Your task to perform on an android device: Open calendar and show me the fourth week of next month Image 0: 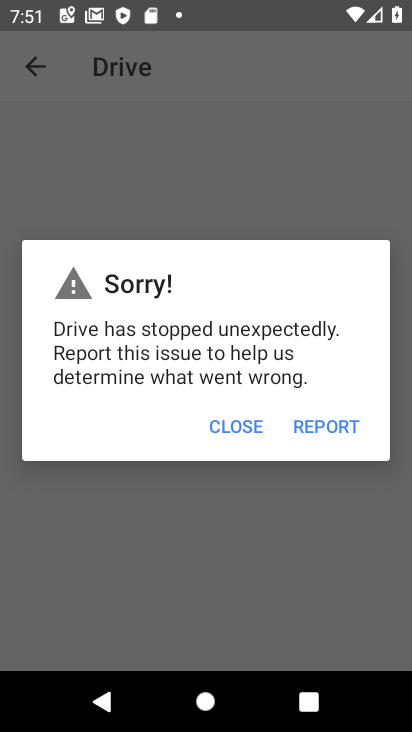
Step 0: press home button
Your task to perform on an android device: Open calendar and show me the fourth week of next month Image 1: 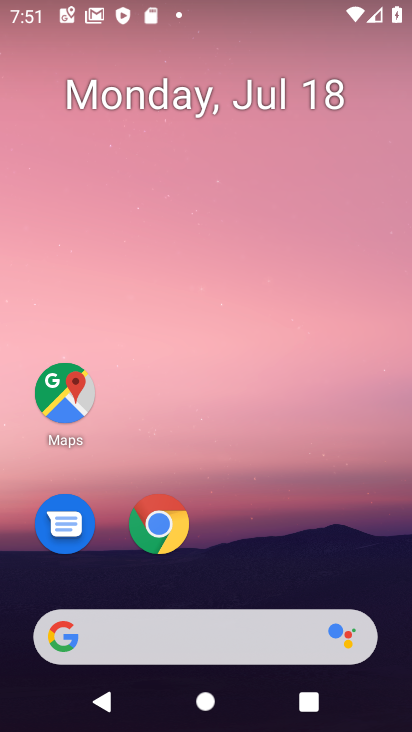
Step 1: drag from (305, 546) to (318, 0)
Your task to perform on an android device: Open calendar and show me the fourth week of next month Image 2: 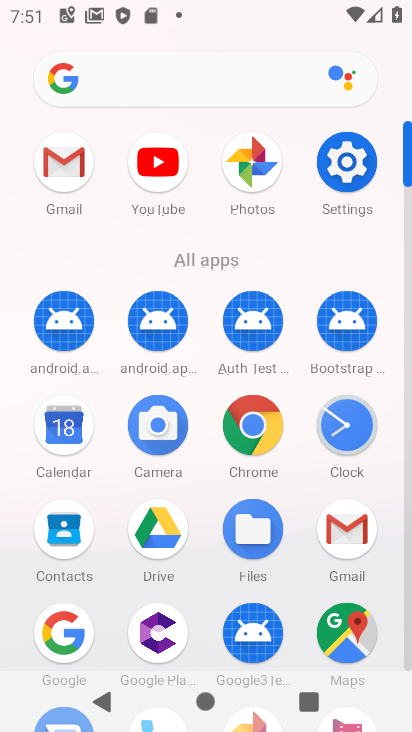
Step 2: click (61, 422)
Your task to perform on an android device: Open calendar and show me the fourth week of next month Image 3: 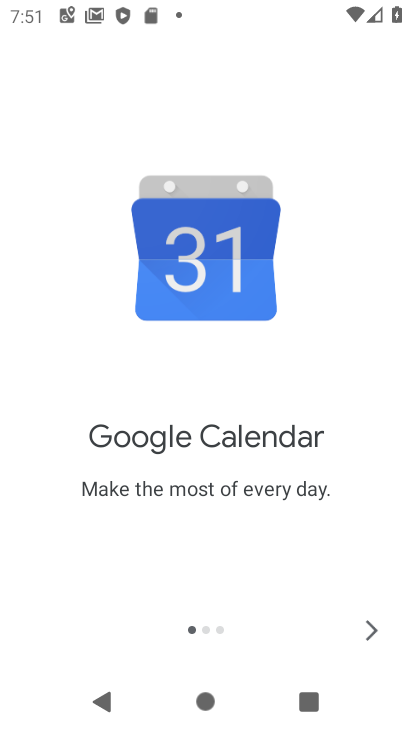
Step 3: click (371, 626)
Your task to perform on an android device: Open calendar and show me the fourth week of next month Image 4: 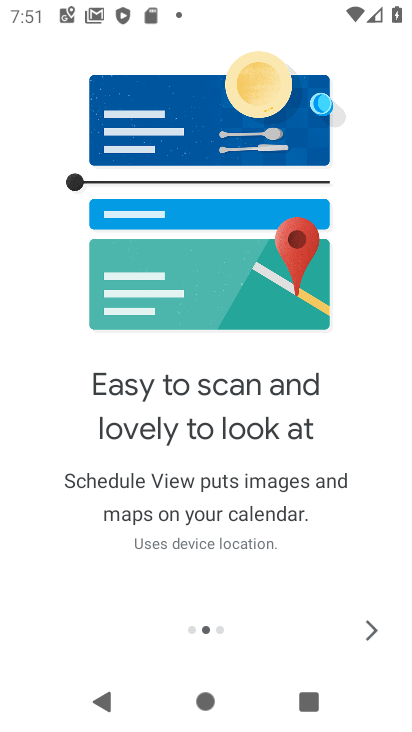
Step 4: click (371, 626)
Your task to perform on an android device: Open calendar and show me the fourth week of next month Image 5: 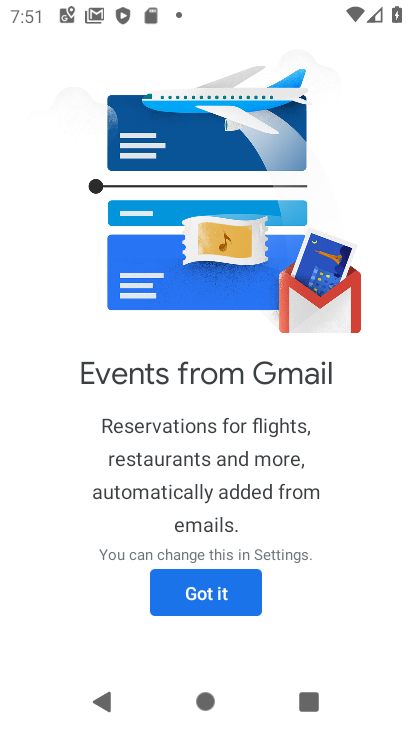
Step 5: click (176, 594)
Your task to perform on an android device: Open calendar and show me the fourth week of next month Image 6: 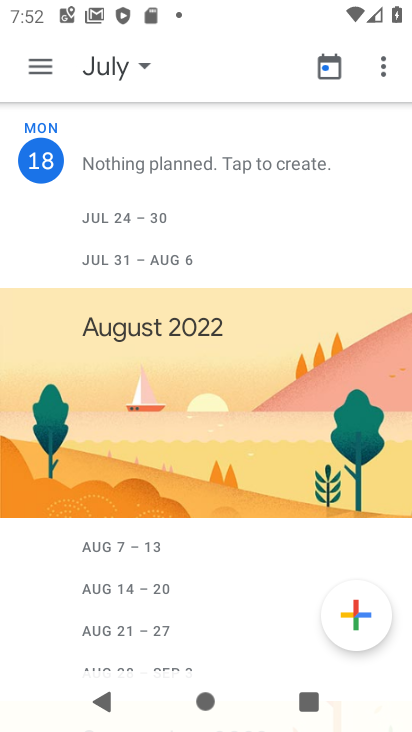
Step 6: drag from (221, 549) to (232, 276)
Your task to perform on an android device: Open calendar and show me the fourth week of next month Image 7: 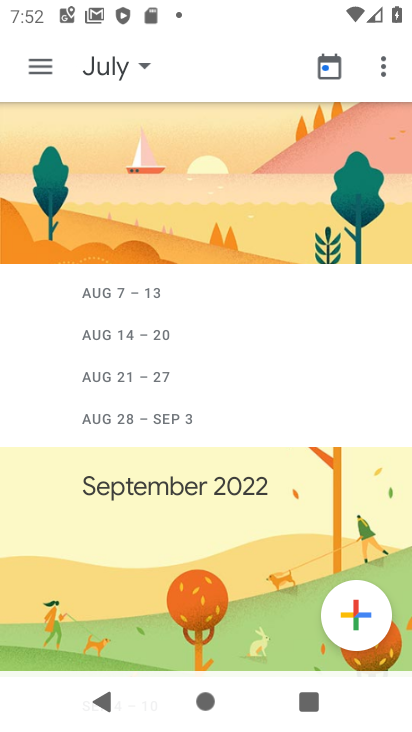
Step 7: click (118, 419)
Your task to perform on an android device: Open calendar and show me the fourth week of next month Image 8: 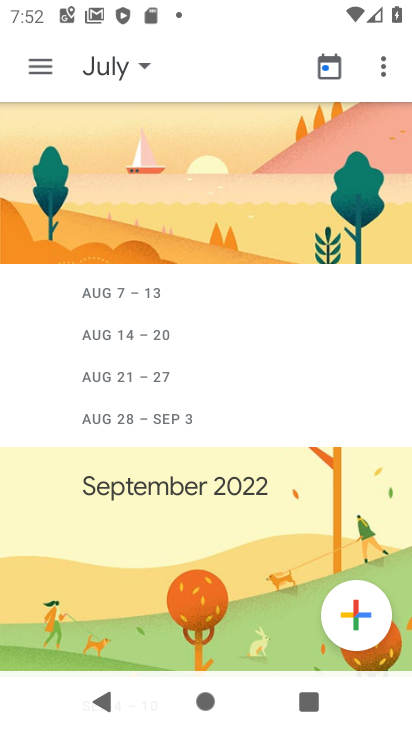
Step 8: click (118, 413)
Your task to perform on an android device: Open calendar and show me the fourth week of next month Image 9: 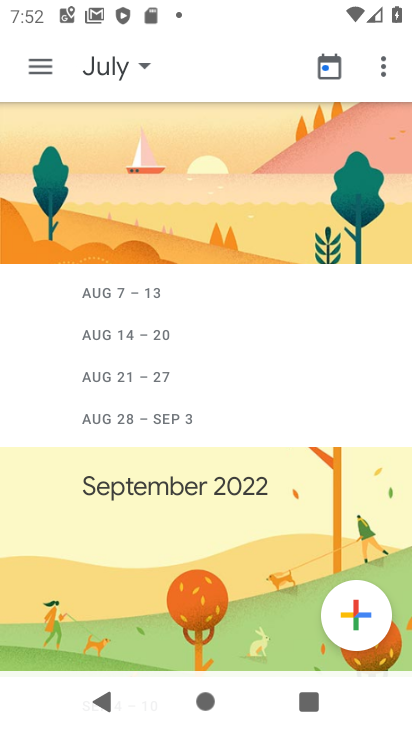
Step 9: click (35, 60)
Your task to perform on an android device: Open calendar and show me the fourth week of next month Image 10: 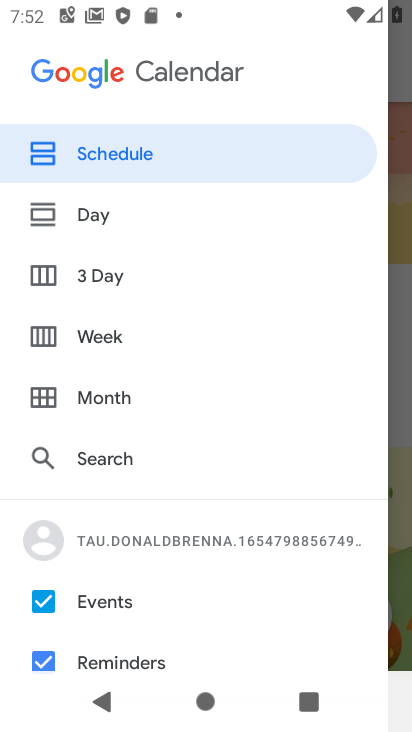
Step 10: click (39, 400)
Your task to perform on an android device: Open calendar and show me the fourth week of next month Image 11: 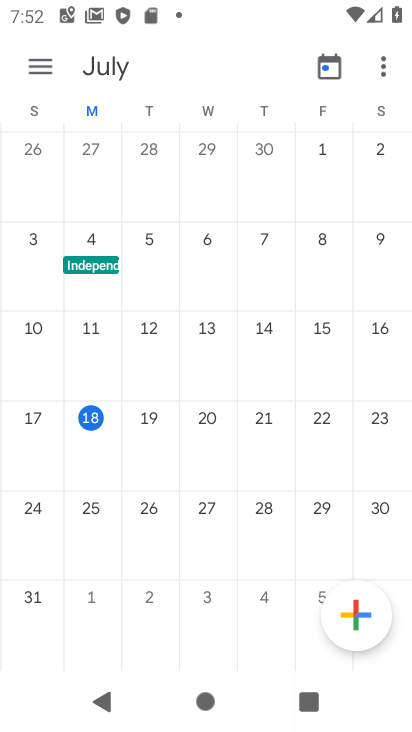
Step 11: drag from (375, 355) to (20, 404)
Your task to perform on an android device: Open calendar and show me the fourth week of next month Image 12: 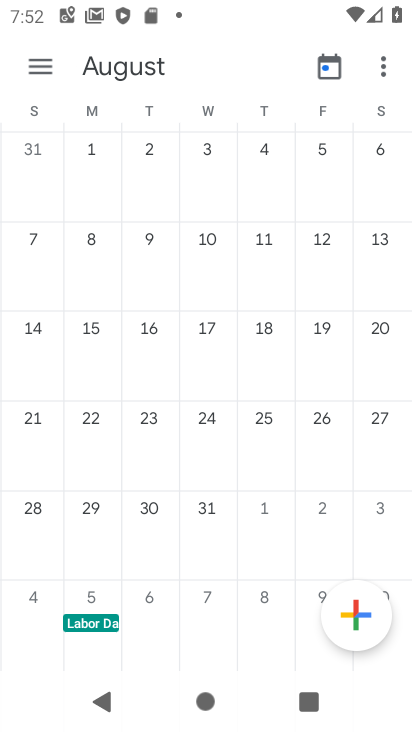
Step 12: click (33, 501)
Your task to perform on an android device: Open calendar and show me the fourth week of next month Image 13: 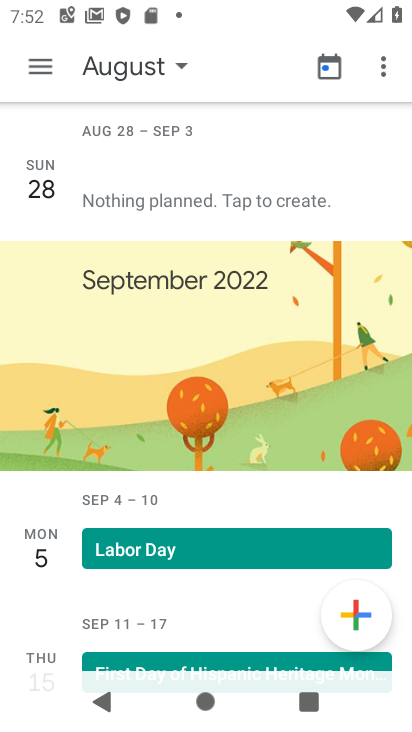
Step 13: click (47, 61)
Your task to perform on an android device: Open calendar and show me the fourth week of next month Image 14: 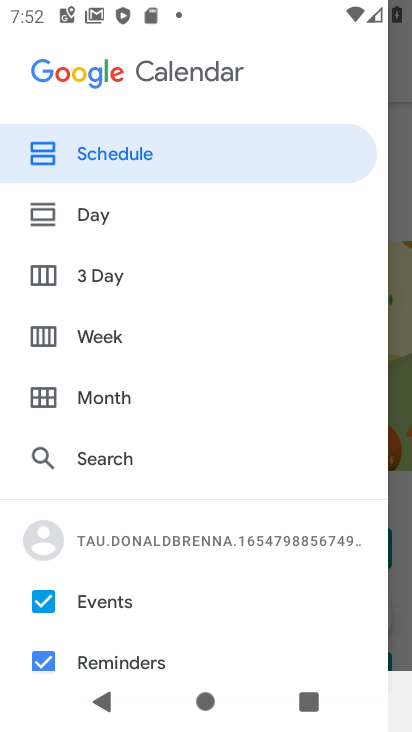
Step 14: click (40, 336)
Your task to perform on an android device: Open calendar and show me the fourth week of next month Image 15: 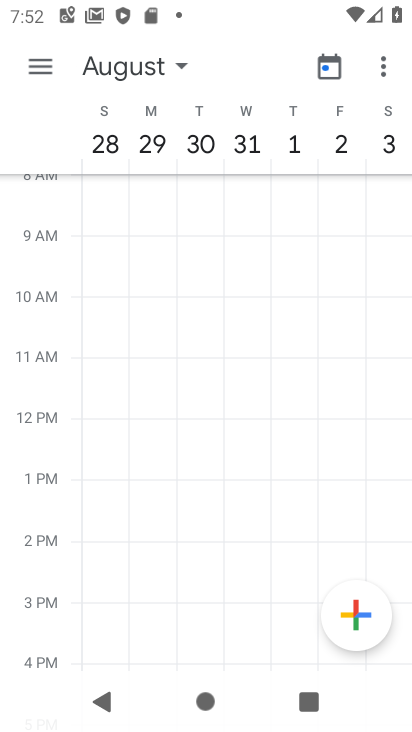
Step 15: task complete